Your task to perform on an android device: Open maps Image 0: 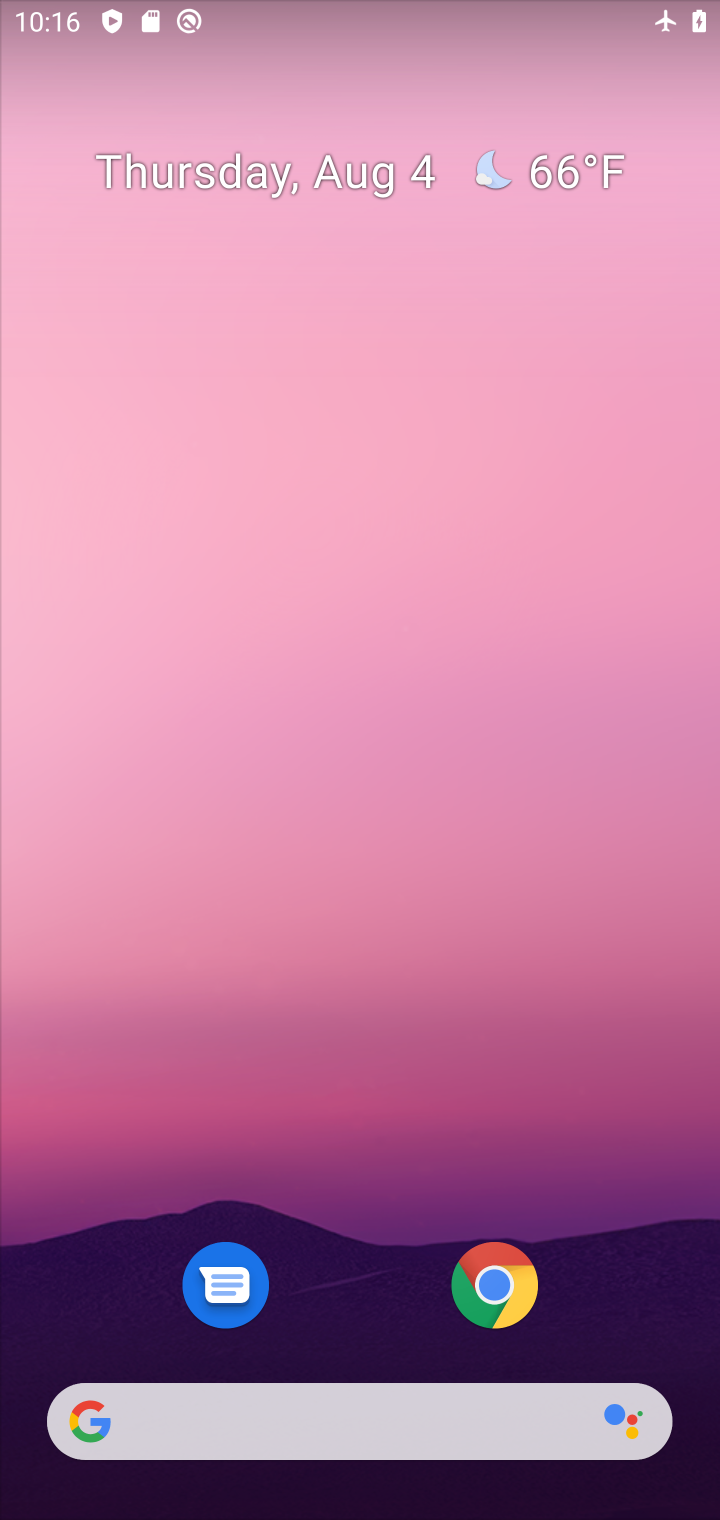
Step 0: drag from (361, 1327) to (267, 36)
Your task to perform on an android device: Open maps Image 1: 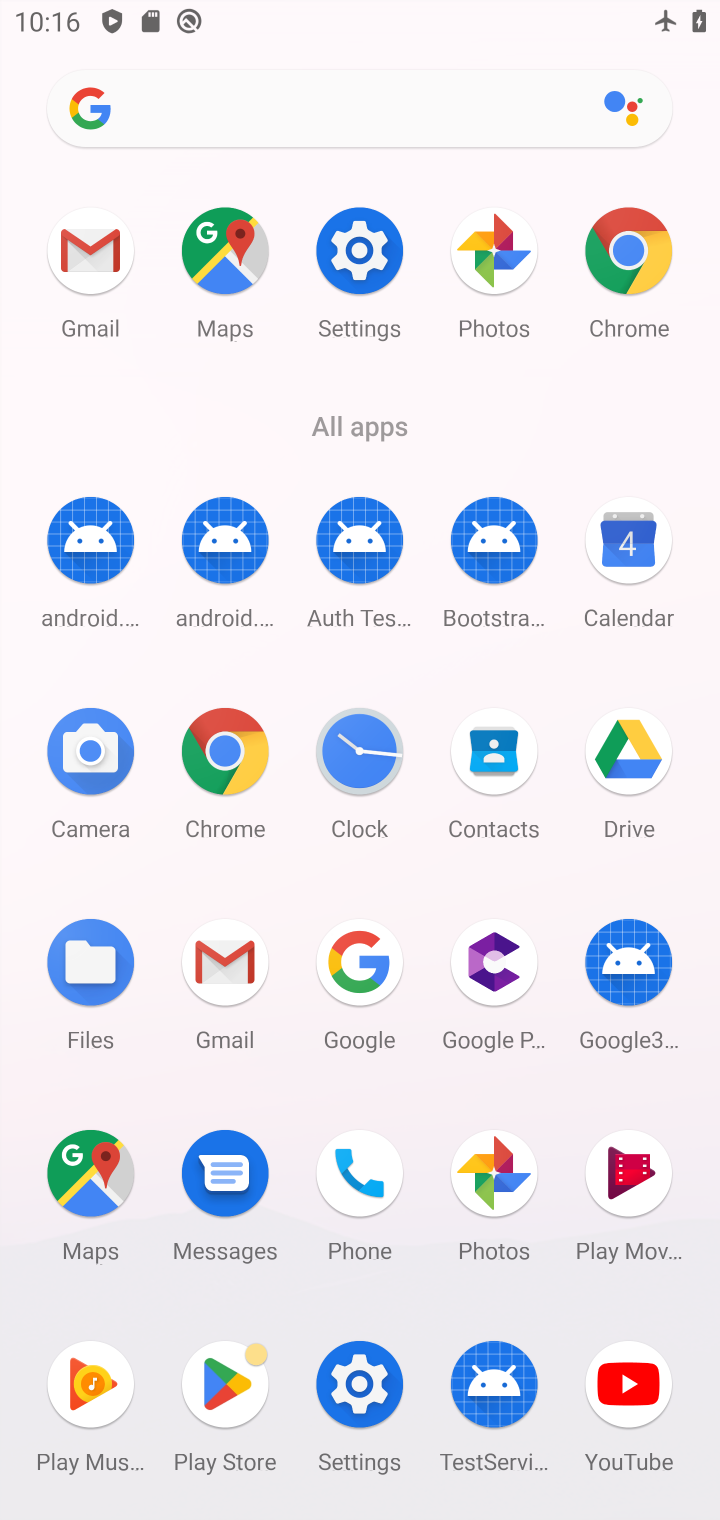
Step 1: click (97, 1168)
Your task to perform on an android device: Open maps Image 2: 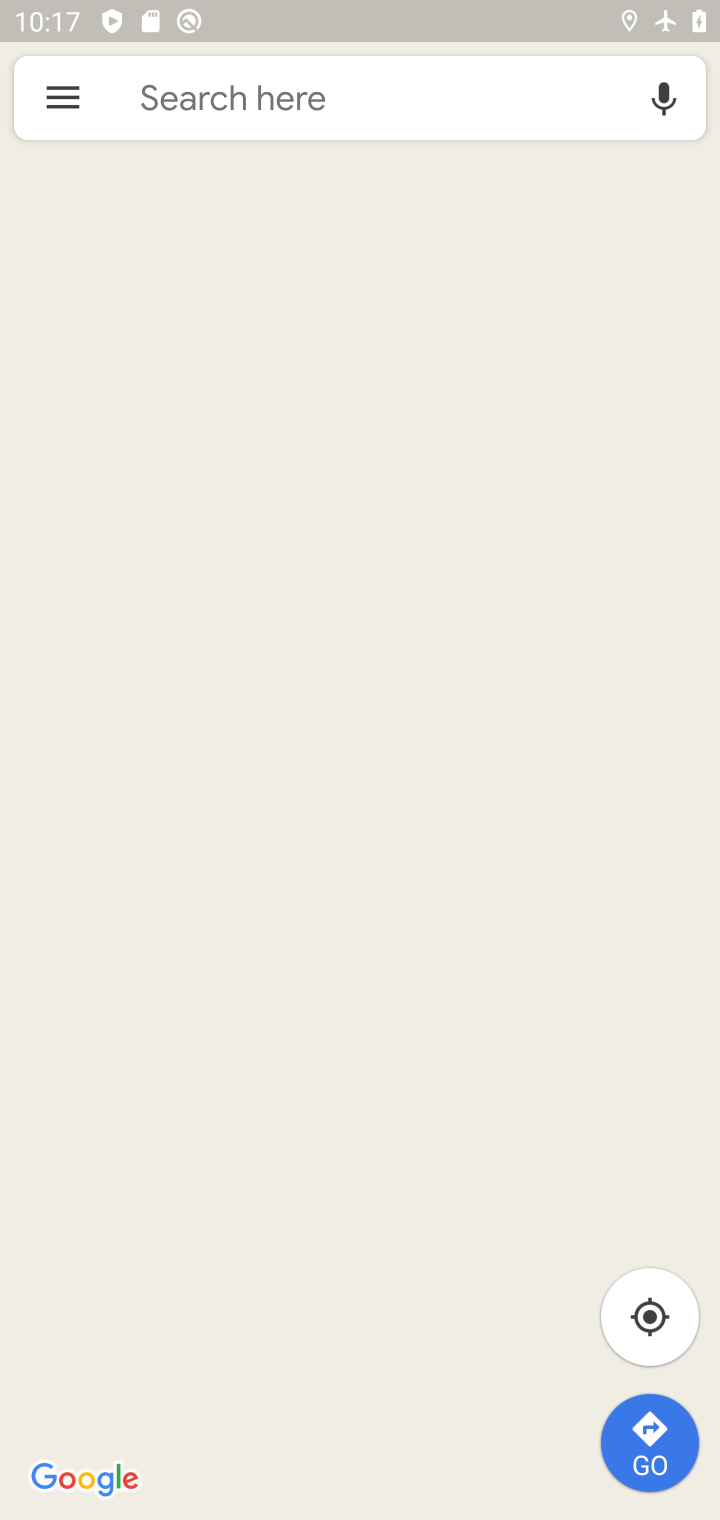
Step 2: task complete